Your task to perform on an android device: Go to Maps Image 0: 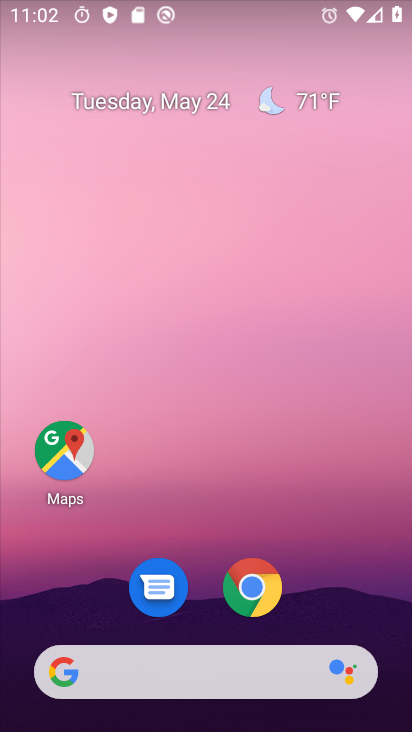
Step 0: drag from (384, 691) to (162, 78)
Your task to perform on an android device: Go to Maps Image 1: 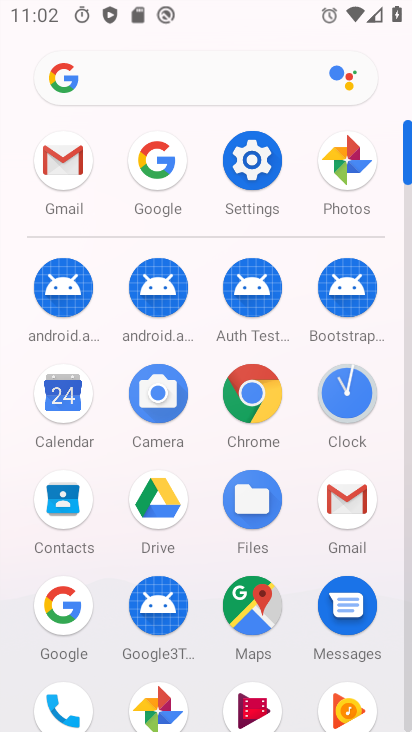
Step 1: click (230, 611)
Your task to perform on an android device: Go to Maps Image 2: 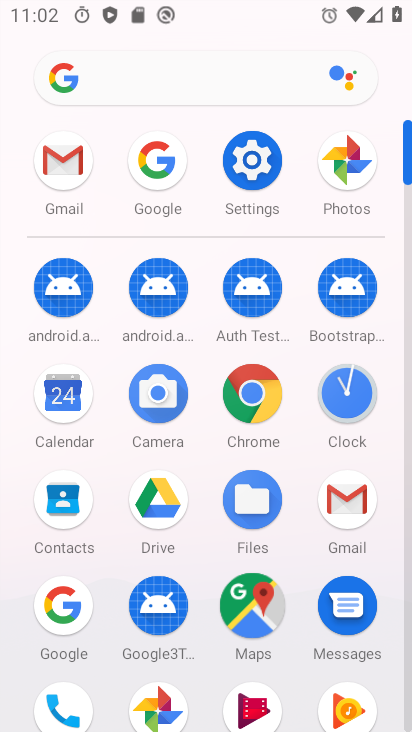
Step 2: click (240, 614)
Your task to perform on an android device: Go to Maps Image 3: 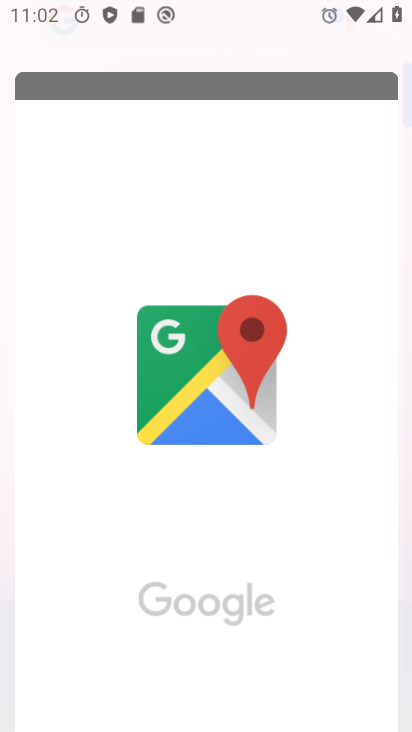
Step 3: click (242, 612)
Your task to perform on an android device: Go to Maps Image 4: 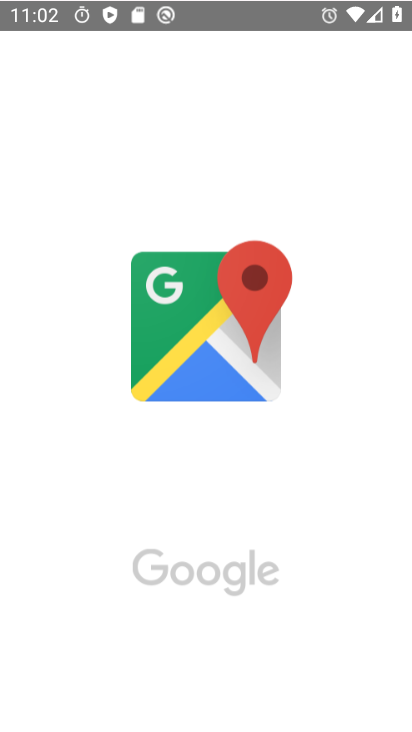
Step 4: click (243, 612)
Your task to perform on an android device: Go to Maps Image 5: 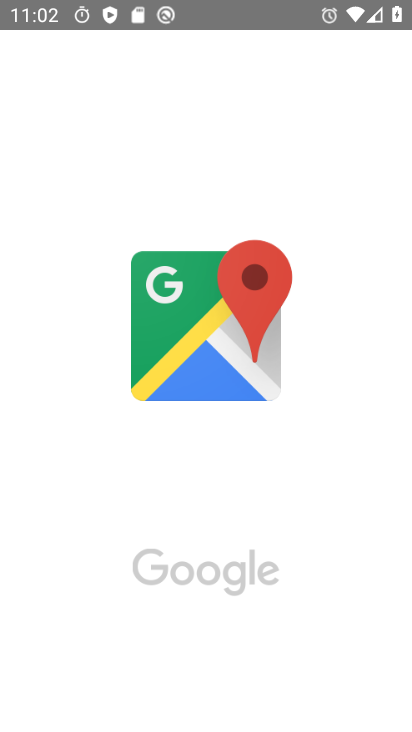
Step 5: click (243, 612)
Your task to perform on an android device: Go to Maps Image 6: 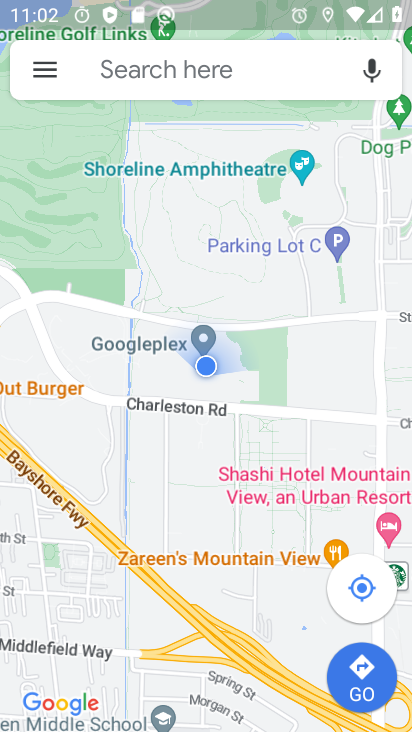
Step 6: task complete